Your task to perform on an android device: Do I have any events this weekend? Image 0: 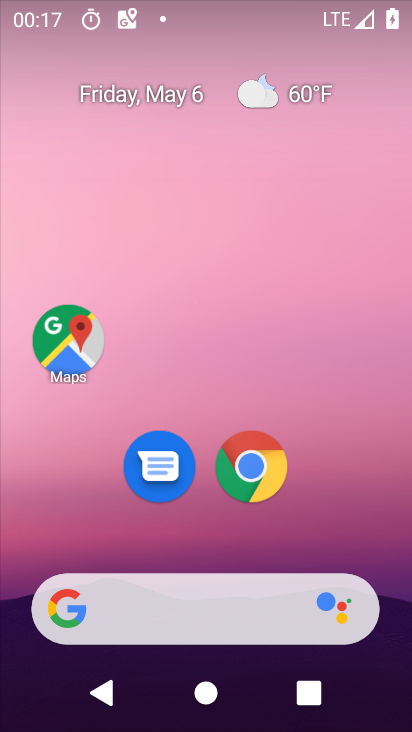
Step 0: drag from (221, 531) to (271, 296)
Your task to perform on an android device: Do I have any events this weekend? Image 1: 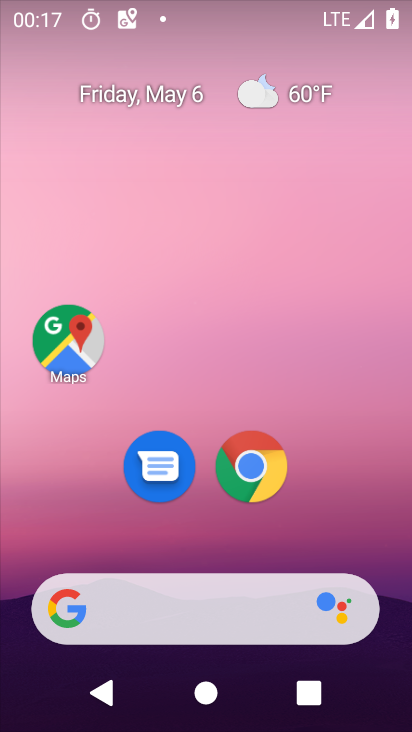
Step 1: drag from (187, 573) to (283, 223)
Your task to perform on an android device: Do I have any events this weekend? Image 2: 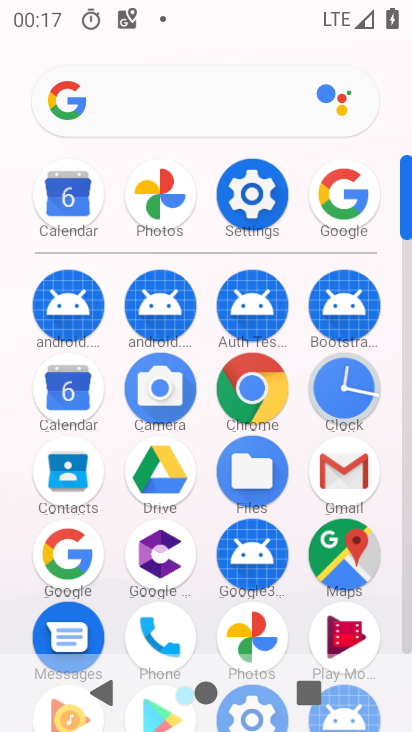
Step 2: click (70, 391)
Your task to perform on an android device: Do I have any events this weekend? Image 3: 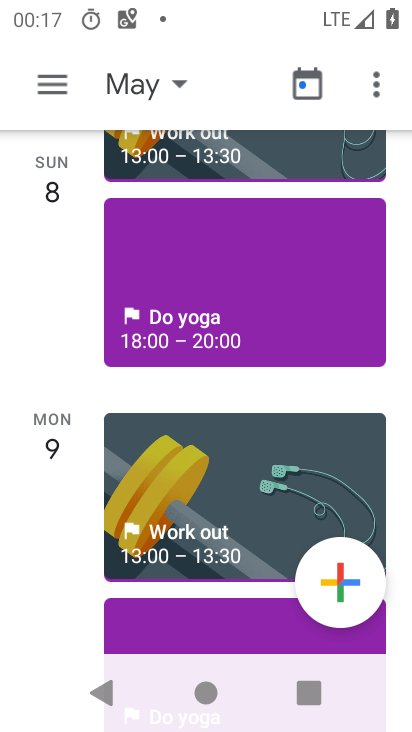
Step 3: task complete